Your task to perform on an android device: Open Chrome and go to settings Image 0: 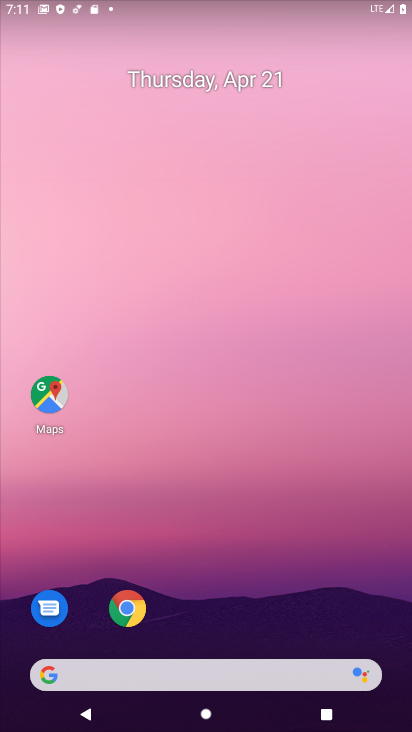
Step 0: click (127, 608)
Your task to perform on an android device: Open Chrome and go to settings Image 1: 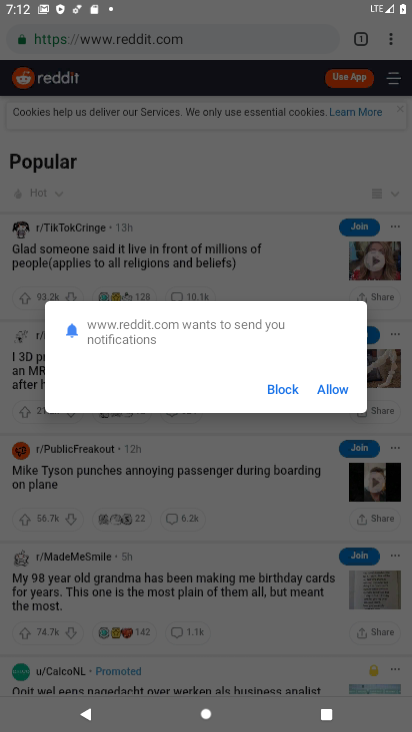
Step 1: press back button
Your task to perform on an android device: Open Chrome and go to settings Image 2: 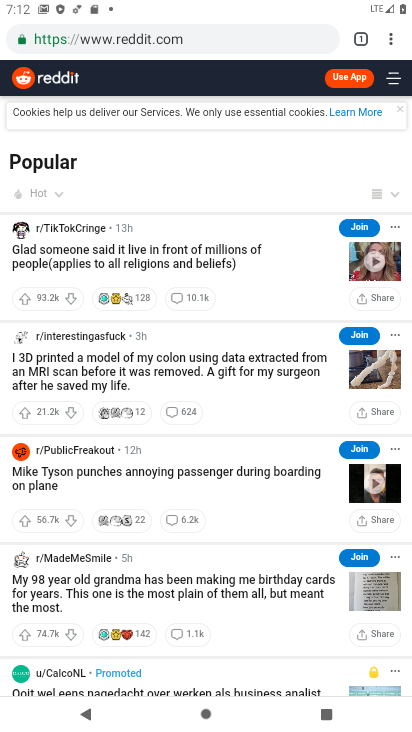
Step 2: drag from (393, 40) to (278, 513)
Your task to perform on an android device: Open Chrome and go to settings Image 3: 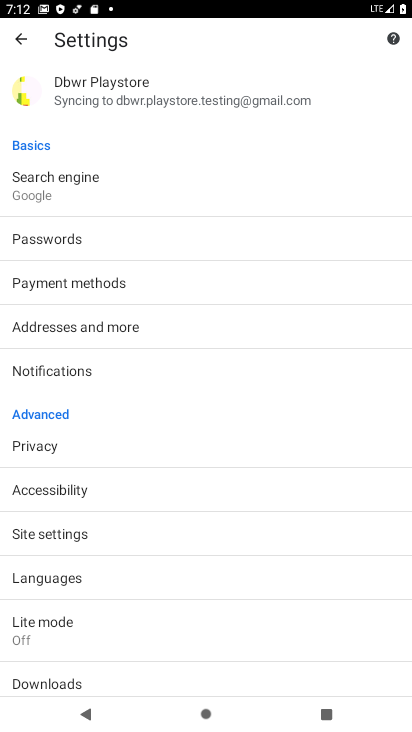
Step 3: click (46, 534)
Your task to perform on an android device: Open Chrome and go to settings Image 4: 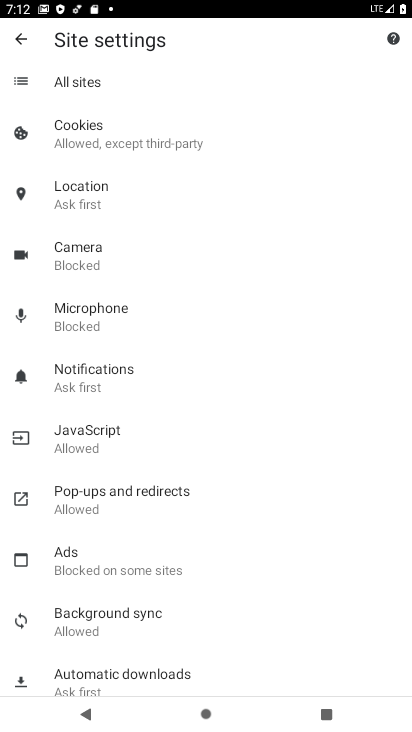
Step 4: task complete